Your task to perform on an android device: What's the weather like in Paris? Image 0: 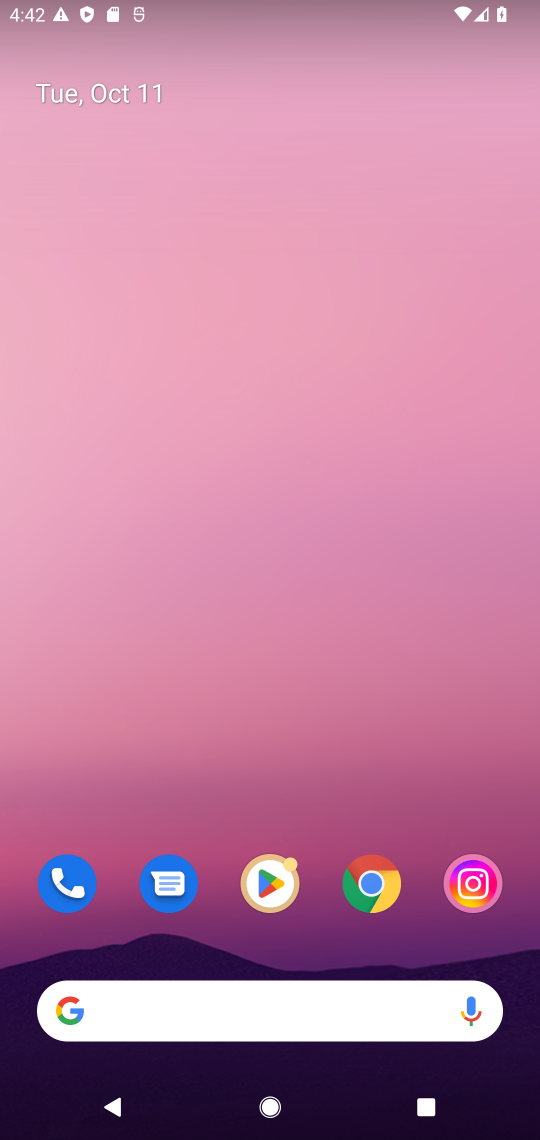
Step 0: drag from (321, 893) to (293, 165)
Your task to perform on an android device: What's the weather like in Paris? Image 1: 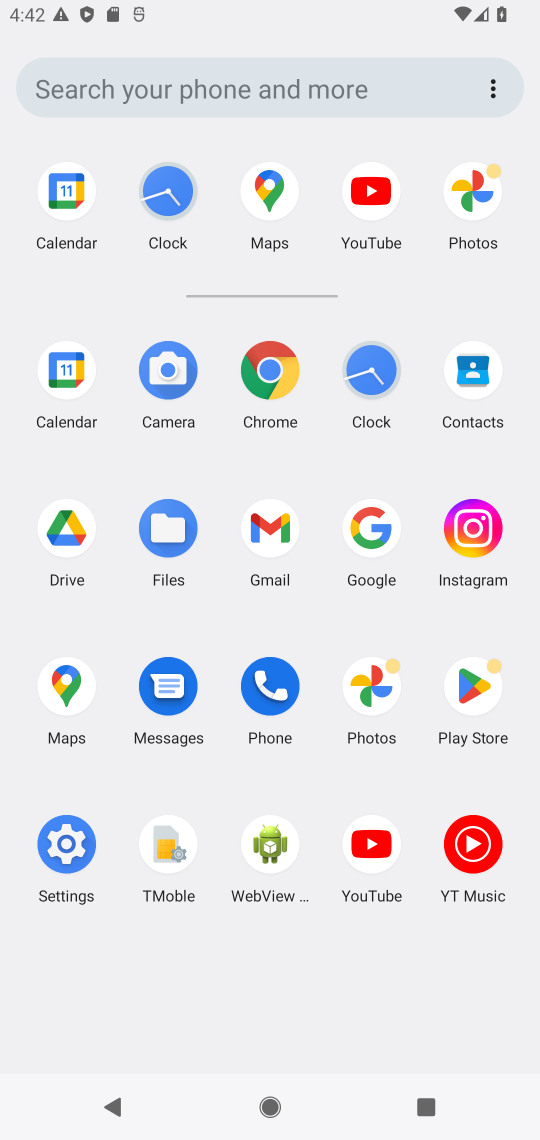
Step 1: click (266, 366)
Your task to perform on an android device: What's the weather like in Paris? Image 2: 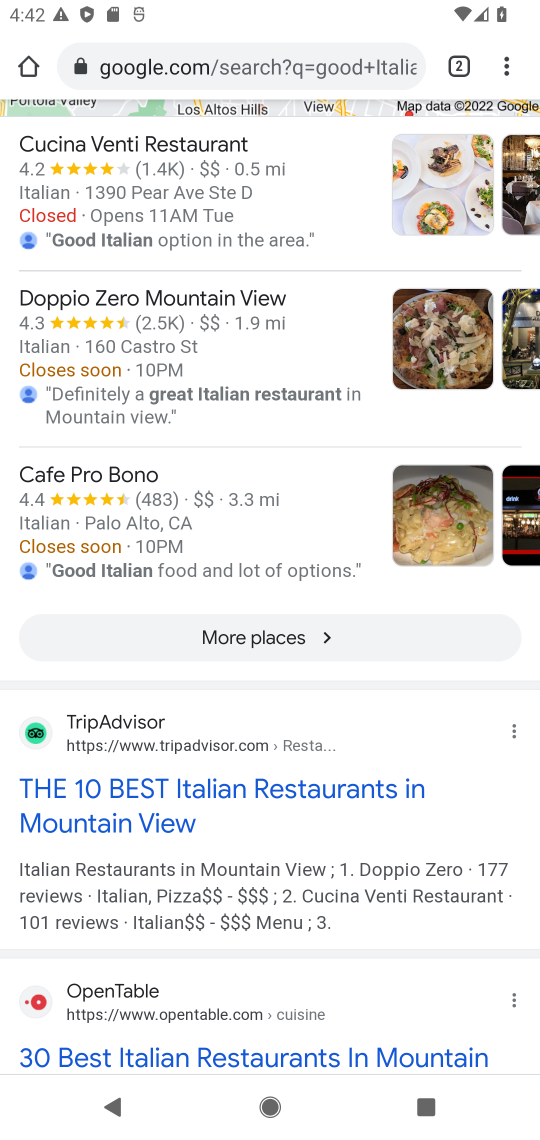
Step 2: click (269, 65)
Your task to perform on an android device: What's the weather like in Paris? Image 3: 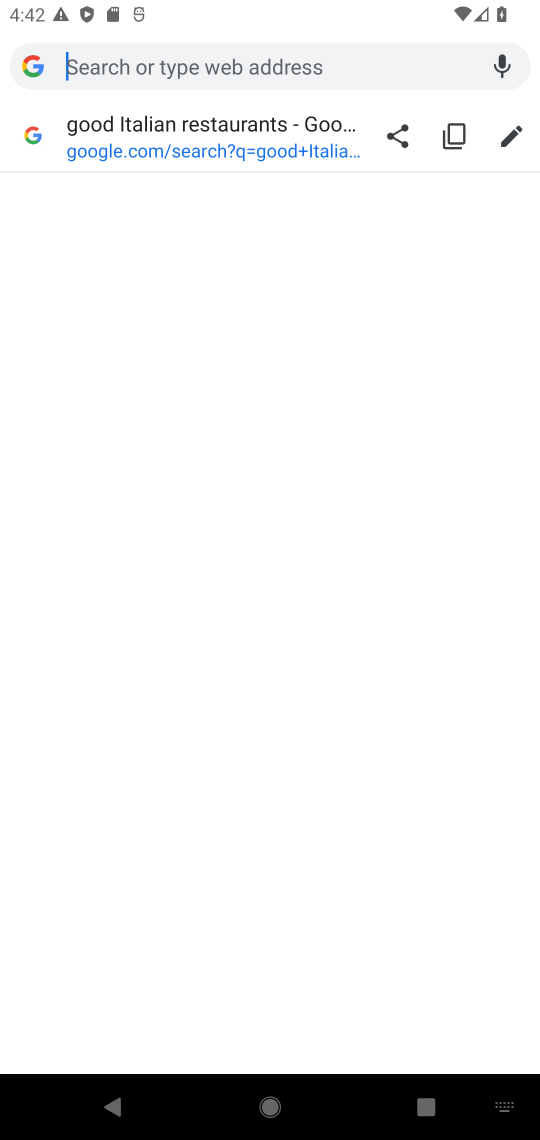
Step 3: type "What's the weather like in Paris?"
Your task to perform on an android device: What's the weather like in Paris? Image 4: 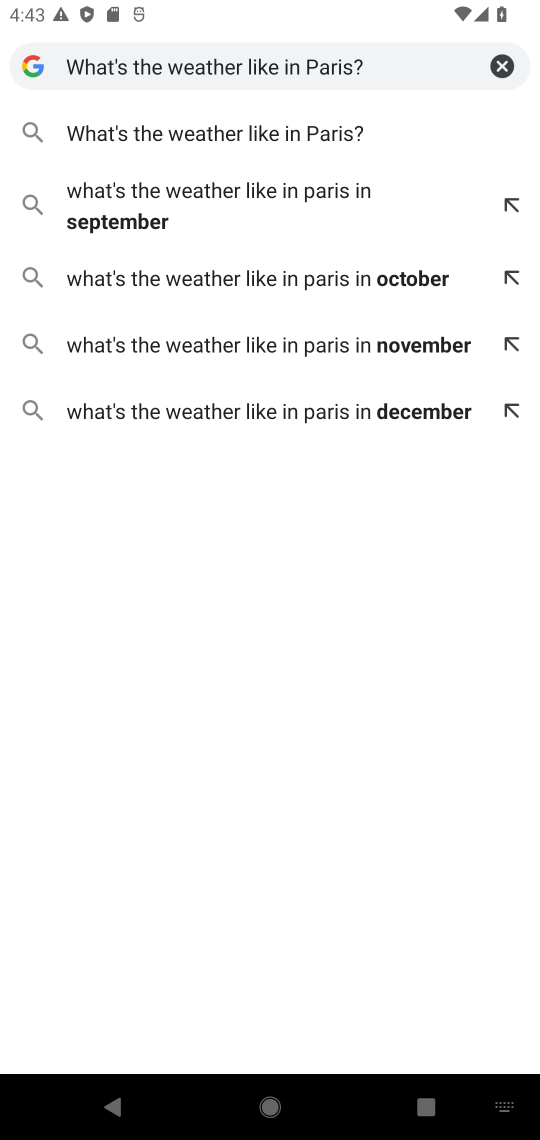
Step 4: press enter
Your task to perform on an android device: What's the weather like in Paris? Image 5: 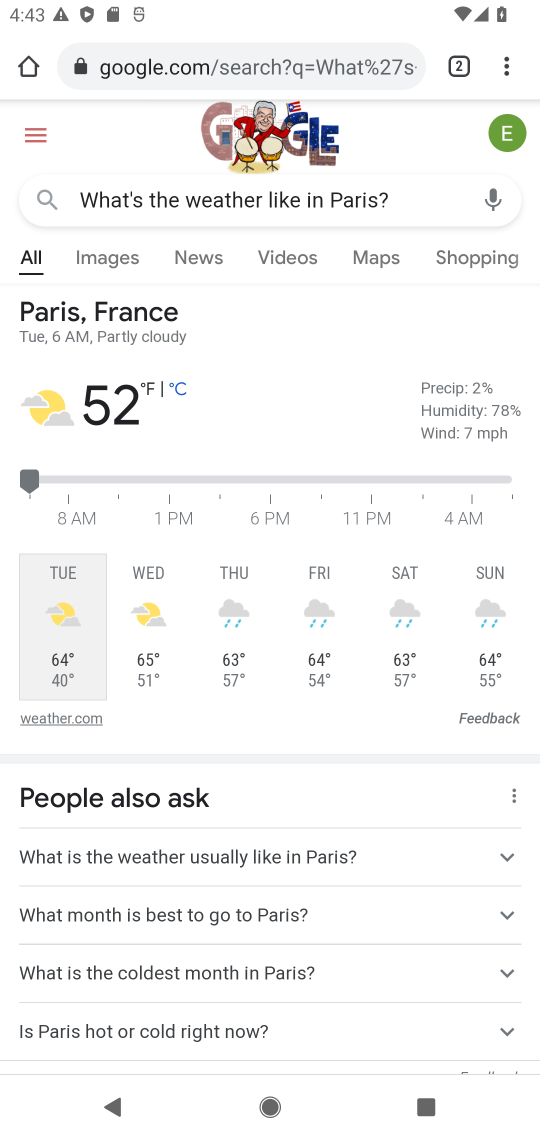
Step 5: task complete